Your task to perform on an android device: turn pop-ups on in chrome Image 0: 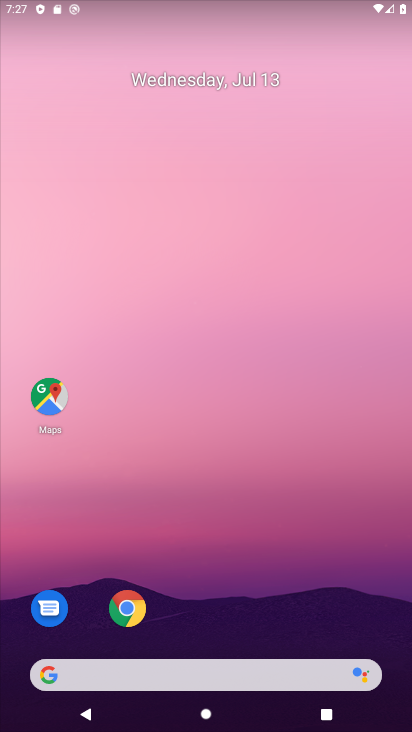
Step 0: click (125, 609)
Your task to perform on an android device: turn pop-ups on in chrome Image 1: 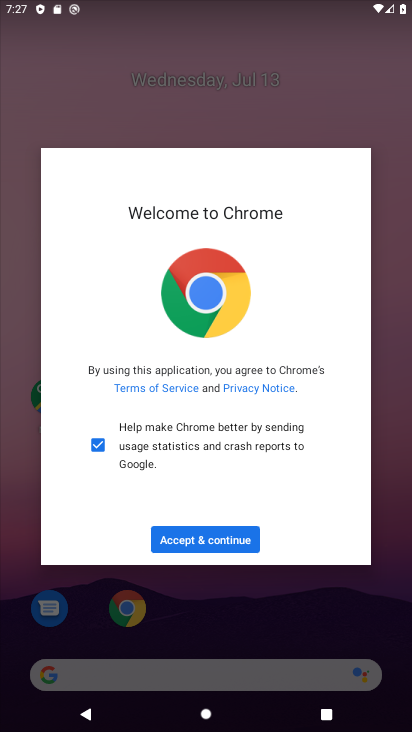
Step 1: click (183, 543)
Your task to perform on an android device: turn pop-ups on in chrome Image 2: 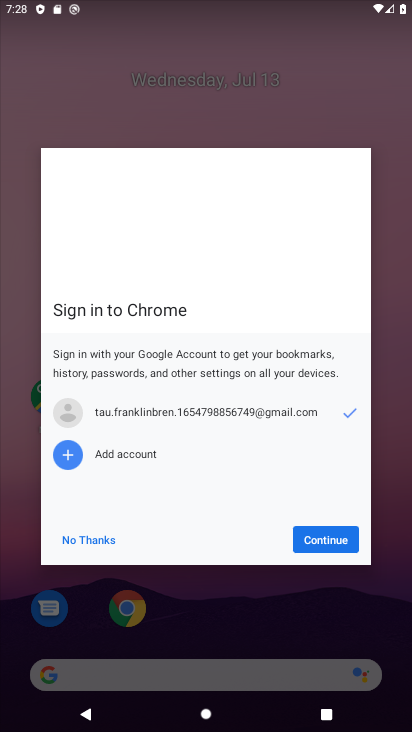
Step 2: click (321, 545)
Your task to perform on an android device: turn pop-ups on in chrome Image 3: 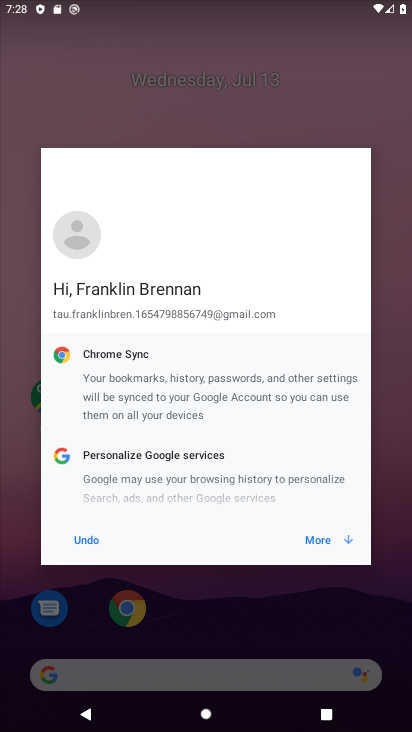
Step 3: click (348, 543)
Your task to perform on an android device: turn pop-ups on in chrome Image 4: 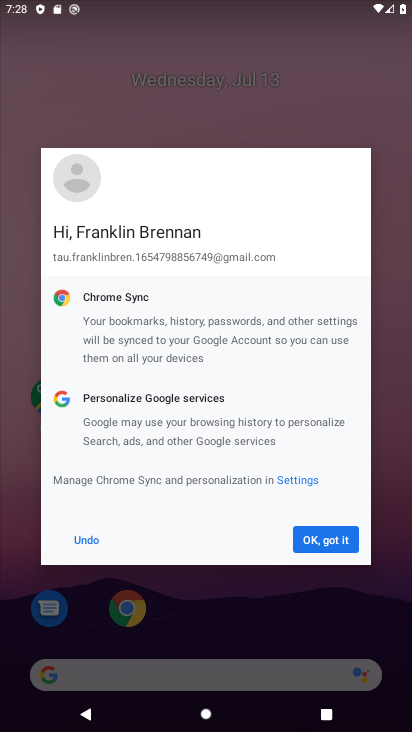
Step 4: click (312, 543)
Your task to perform on an android device: turn pop-ups on in chrome Image 5: 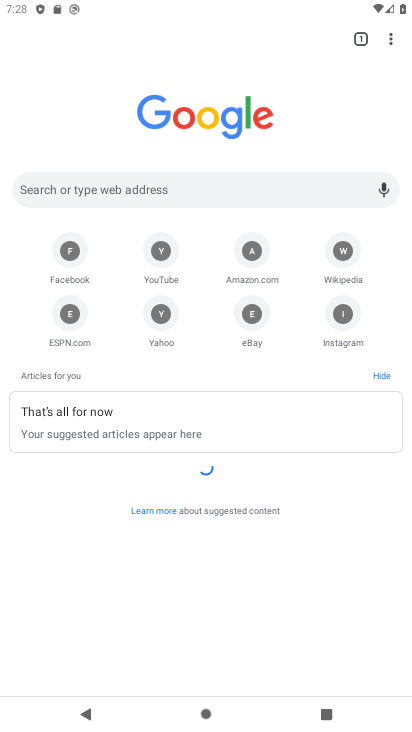
Step 5: click (392, 34)
Your task to perform on an android device: turn pop-ups on in chrome Image 6: 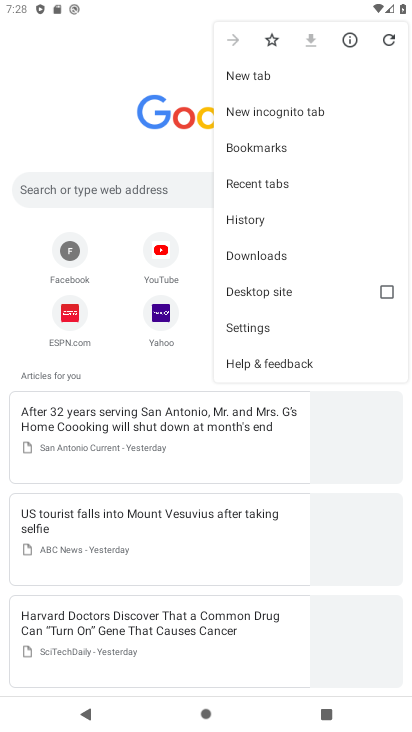
Step 6: click (255, 326)
Your task to perform on an android device: turn pop-ups on in chrome Image 7: 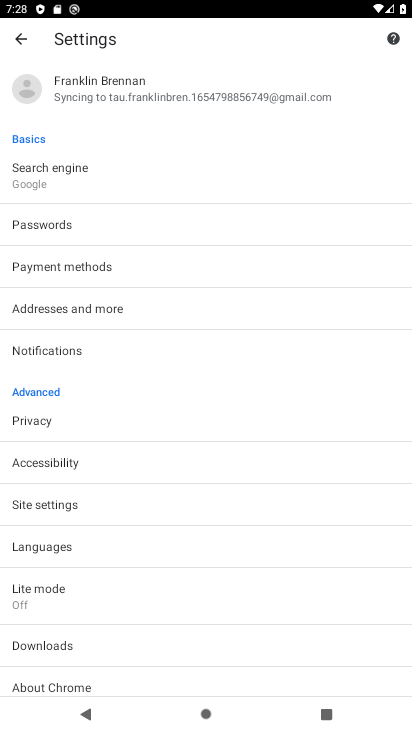
Step 7: click (24, 506)
Your task to perform on an android device: turn pop-ups on in chrome Image 8: 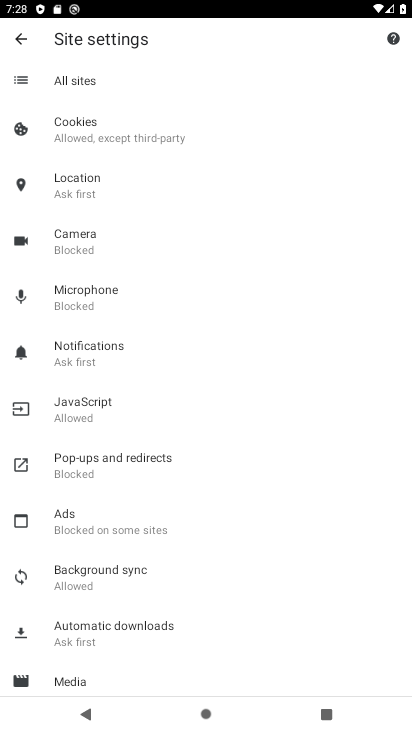
Step 8: click (69, 458)
Your task to perform on an android device: turn pop-ups on in chrome Image 9: 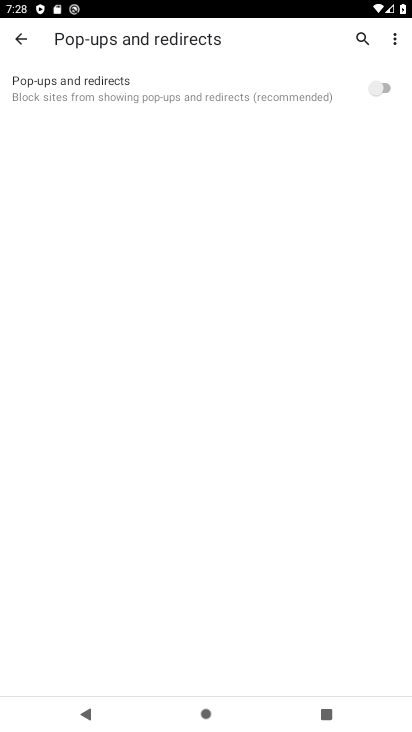
Step 9: click (380, 89)
Your task to perform on an android device: turn pop-ups on in chrome Image 10: 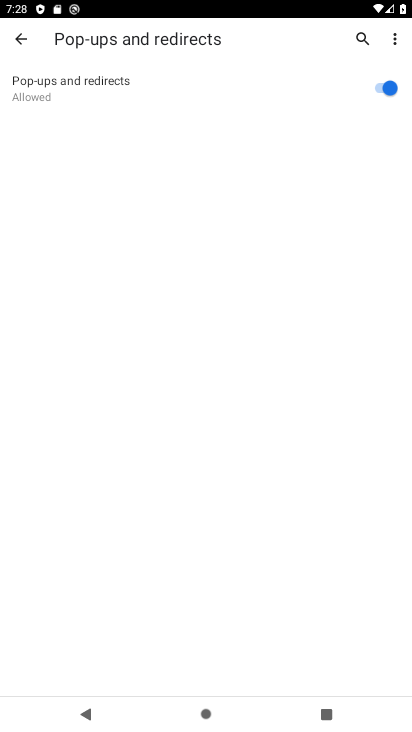
Step 10: task complete